Your task to perform on an android device: Open calendar and show me the third week of next month Image 0: 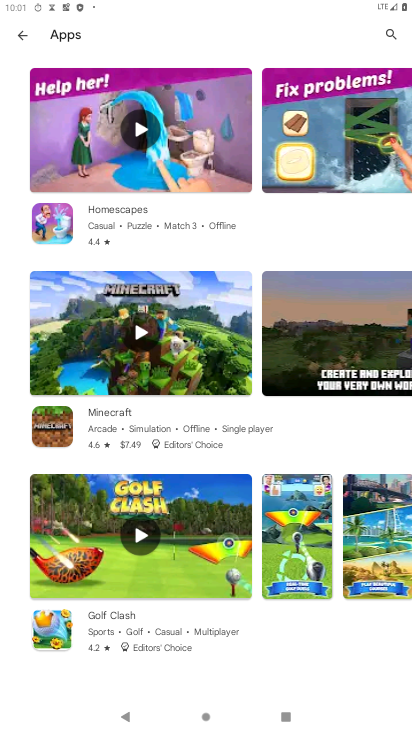
Step 0: press home button
Your task to perform on an android device: Open calendar and show me the third week of next month Image 1: 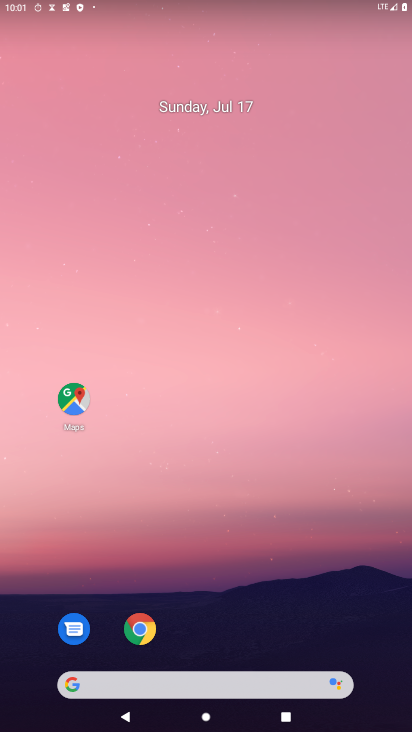
Step 1: drag from (238, 730) to (268, 92)
Your task to perform on an android device: Open calendar and show me the third week of next month Image 2: 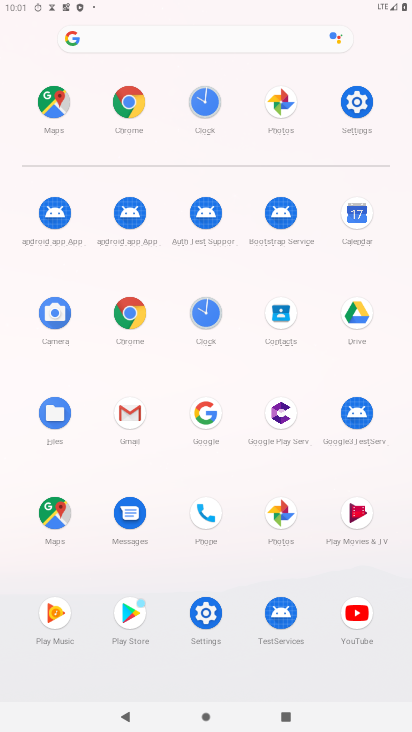
Step 2: click (352, 211)
Your task to perform on an android device: Open calendar and show me the third week of next month Image 3: 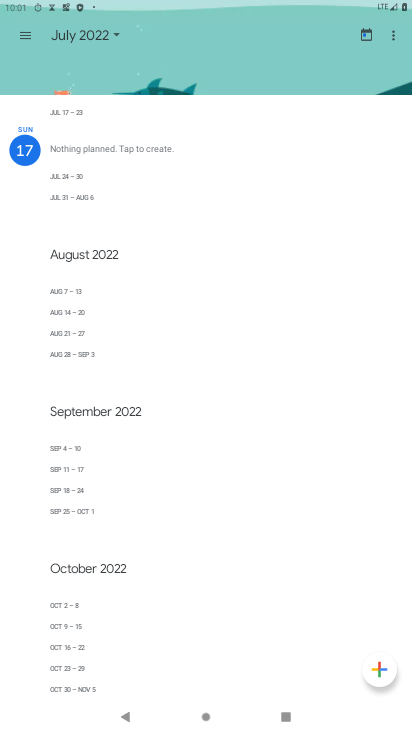
Step 3: click (114, 30)
Your task to perform on an android device: Open calendar and show me the third week of next month Image 4: 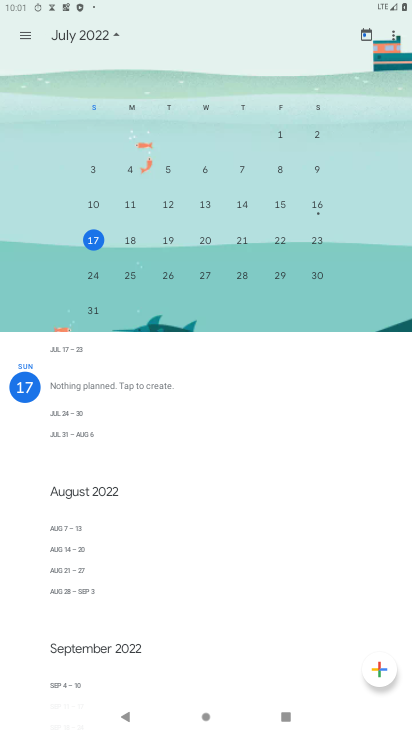
Step 4: drag from (314, 213) to (22, 223)
Your task to perform on an android device: Open calendar and show me the third week of next month Image 5: 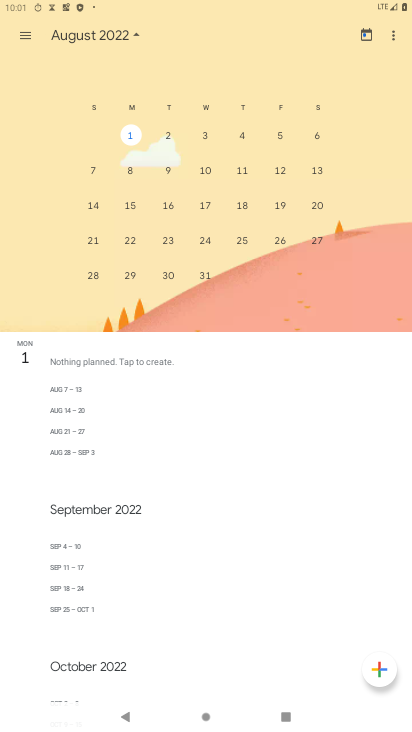
Step 5: click (127, 200)
Your task to perform on an android device: Open calendar and show me the third week of next month Image 6: 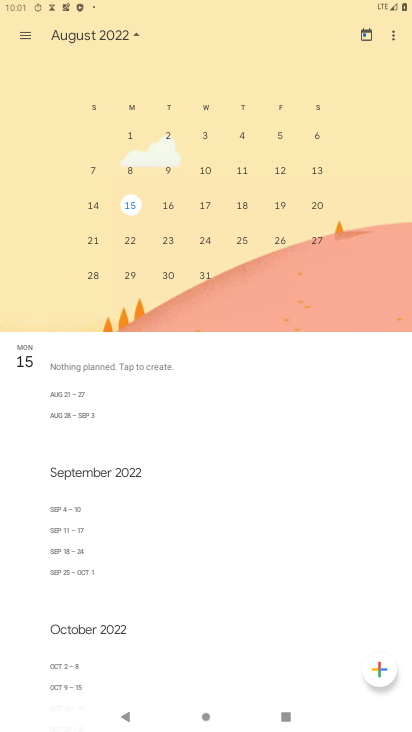
Step 6: click (24, 38)
Your task to perform on an android device: Open calendar and show me the third week of next month Image 7: 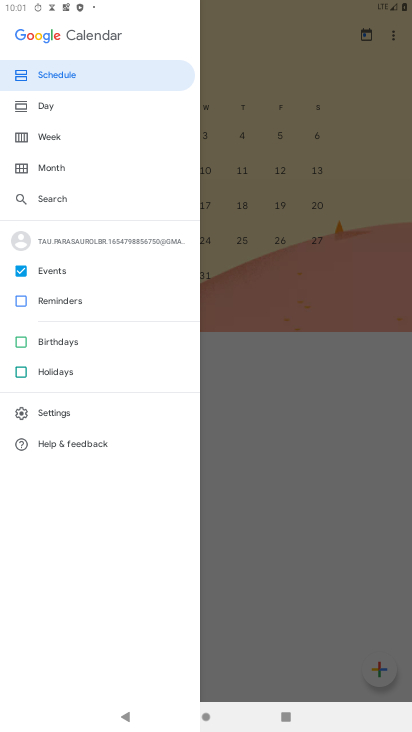
Step 7: click (50, 134)
Your task to perform on an android device: Open calendar and show me the third week of next month Image 8: 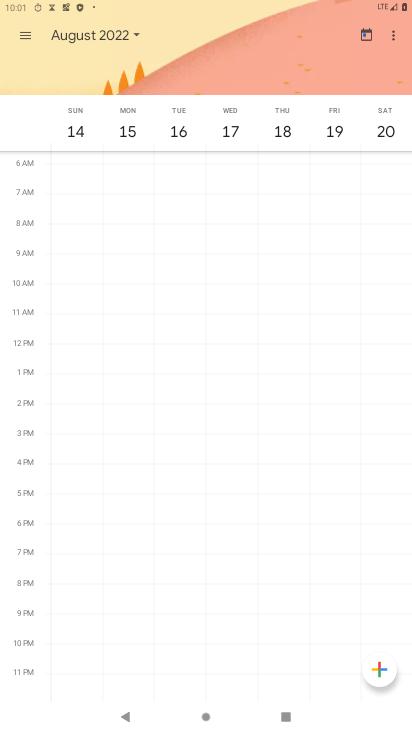
Step 8: task complete